Your task to perform on an android device: open chrome privacy settings Image 0: 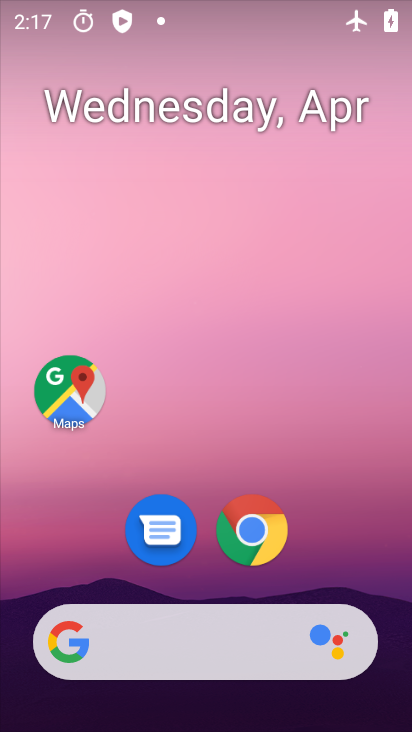
Step 0: drag from (352, 544) to (349, 198)
Your task to perform on an android device: open chrome privacy settings Image 1: 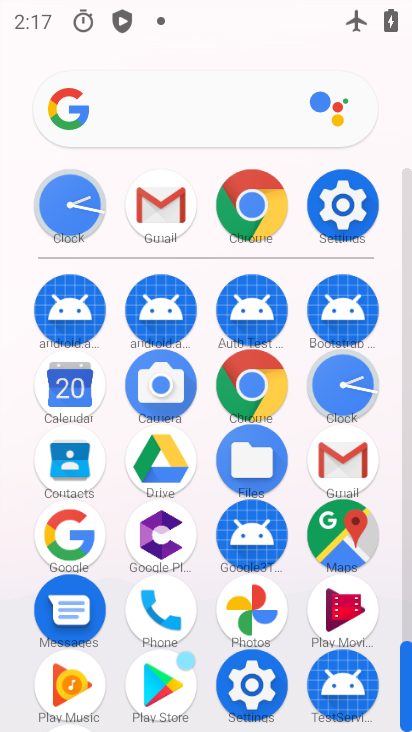
Step 1: click (260, 382)
Your task to perform on an android device: open chrome privacy settings Image 2: 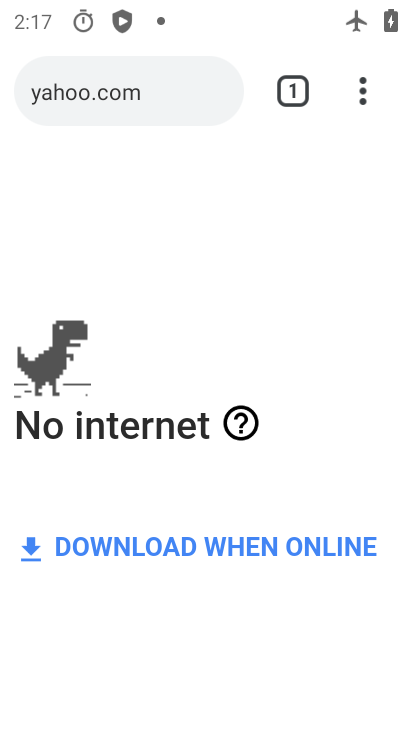
Step 2: click (361, 93)
Your task to perform on an android device: open chrome privacy settings Image 3: 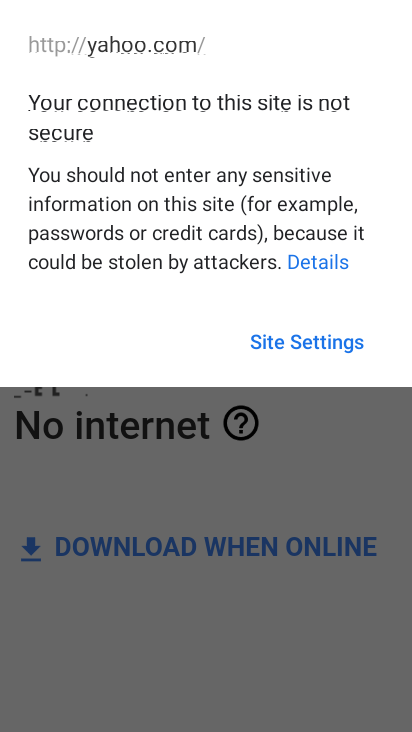
Step 3: click (299, 425)
Your task to perform on an android device: open chrome privacy settings Image 4: 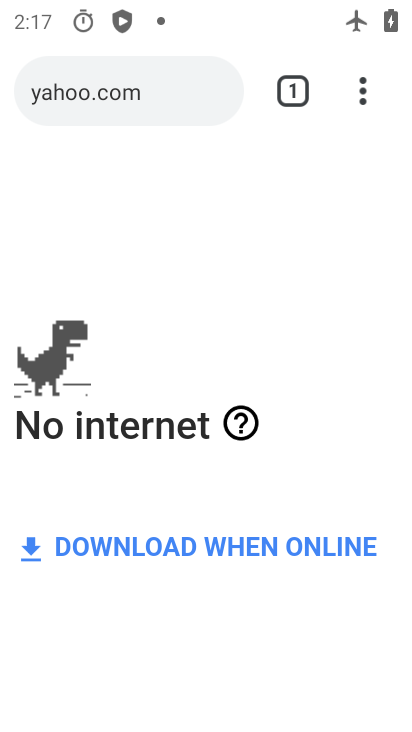
Step 4: drag from (363, 84) to (200, 567)
Your task to perform on an android device: open chrome privacy settings Image 5: 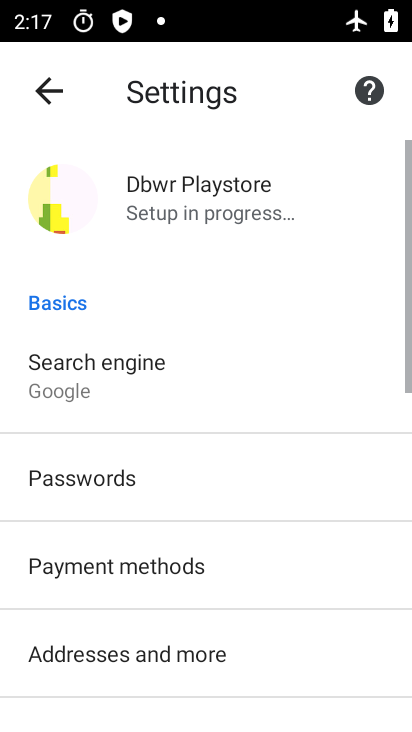
Step 5: drag from (204, 564) to (362, 134)
Your task to perform on an android device: open chrome privacy settings Image 6: 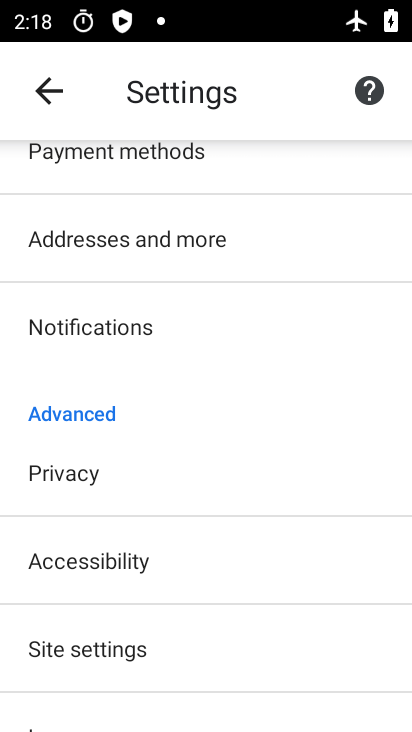
Step 6: click (90, 471)
Your task to perform on an android device: open chrome privacy settings Image 7: 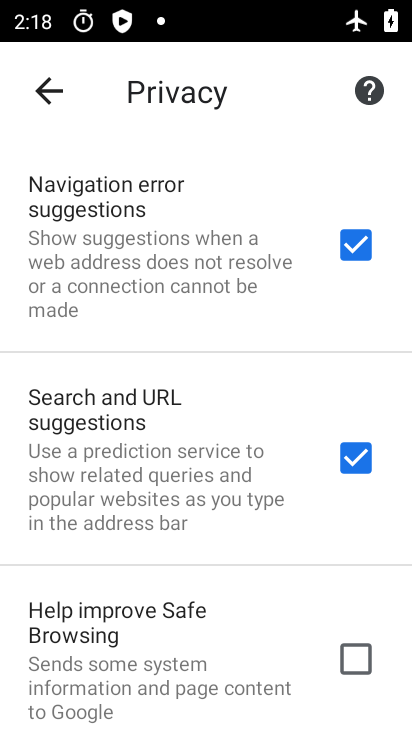
Step 7: task complete